Your task to perform on an android device: choose inbox layout in the gmail app Image 0: 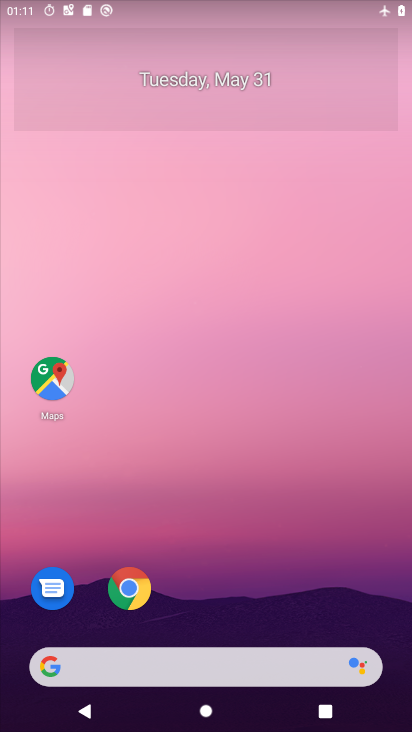
Step 0: drag from (177, 626) to (215, 10)
Your task to perform on an android device: choose inbox layout in the gmail app Image 1: 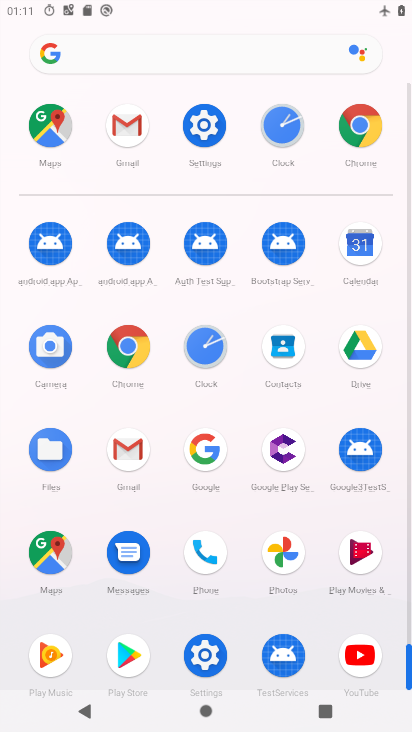
Step 1: click (113, 444)
Your task to perform on an android device: choose inbox layout in the gmail app Image 2: 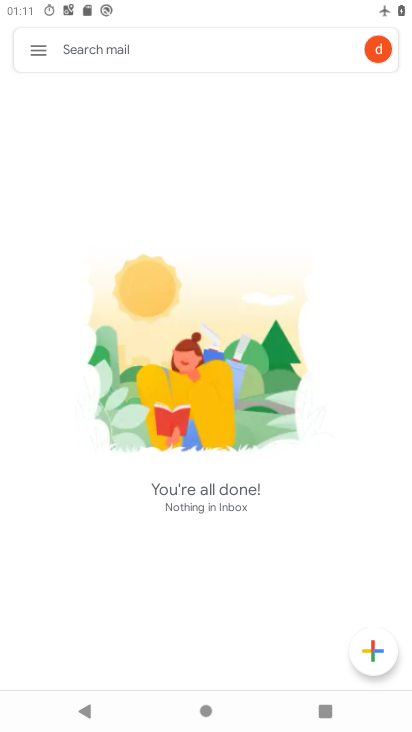
Step 2: click (31, 50)
Your task to perform on an android device: choose inbox layout in the gmail app Image 3: 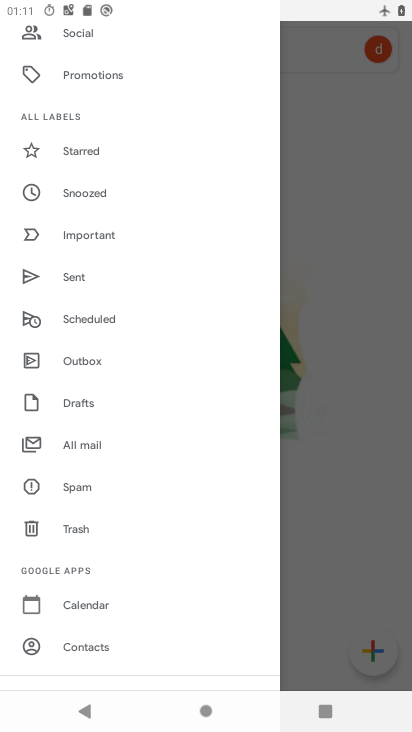
Step 3: drag from (127, 609) to (135, 164)
Your task to perform on an android device: choose inbox layout in the gmail app Image 4: 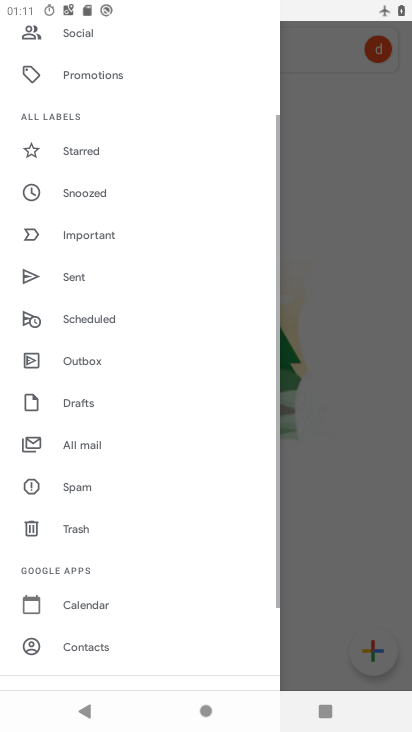
Step 4: drag from (154, 627) to (168, 215)
Your task to perform on an android device: choose inbox layout in the gmail app Image 5: 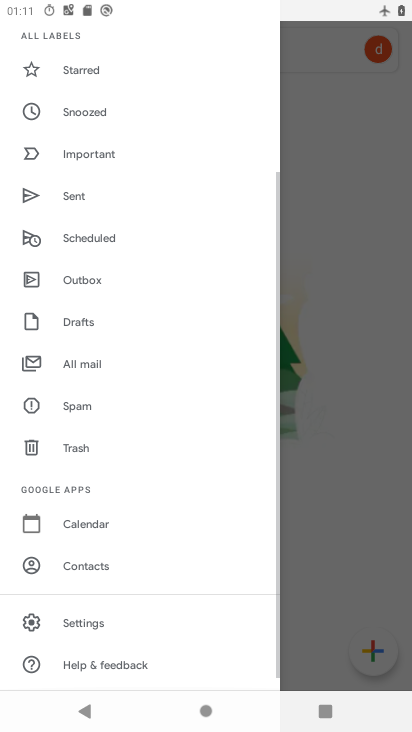
Step 5: click (86, 613)
Your task to perform on an android device: choose inbox layout in the gmail app Image 6: 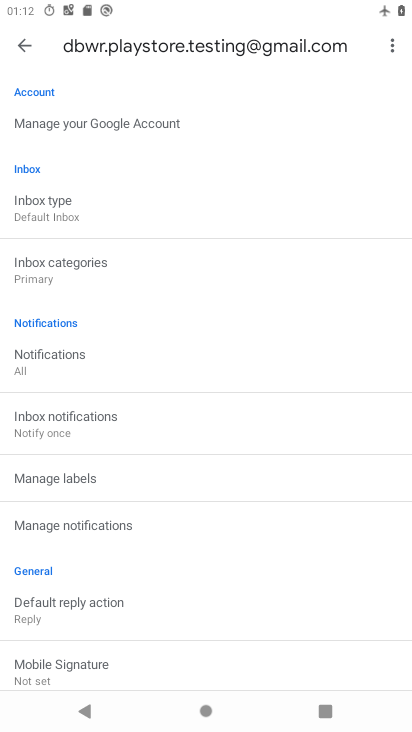
Step 6: click (79, 218)
Your task to perform on an android device: choose inbox layout in the gmail app Image 7: 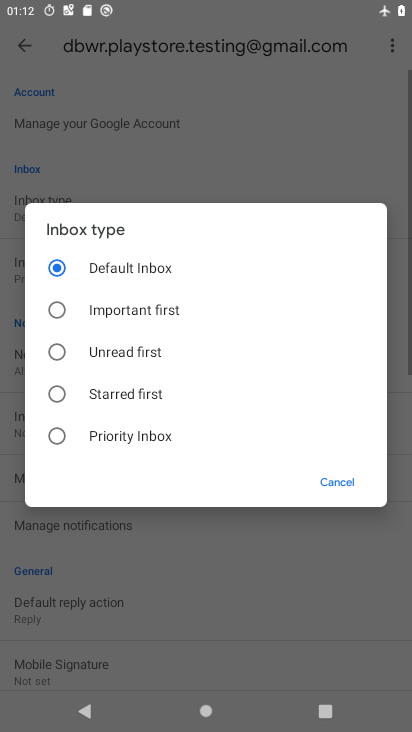
Step 7: click (109, 312)
Your task to perform on an android device: choose inbox layout in the gmail app Image 8: 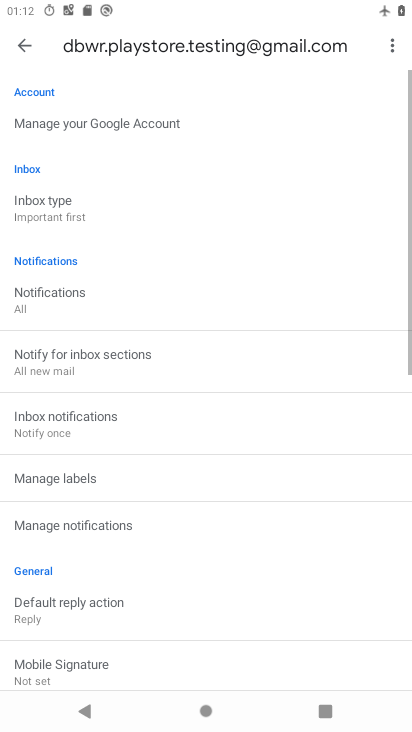
Step 8: task complete